Your task to perform on an android device: Add bose quietcomfort 35 to the cart on bestbuy Image 0: 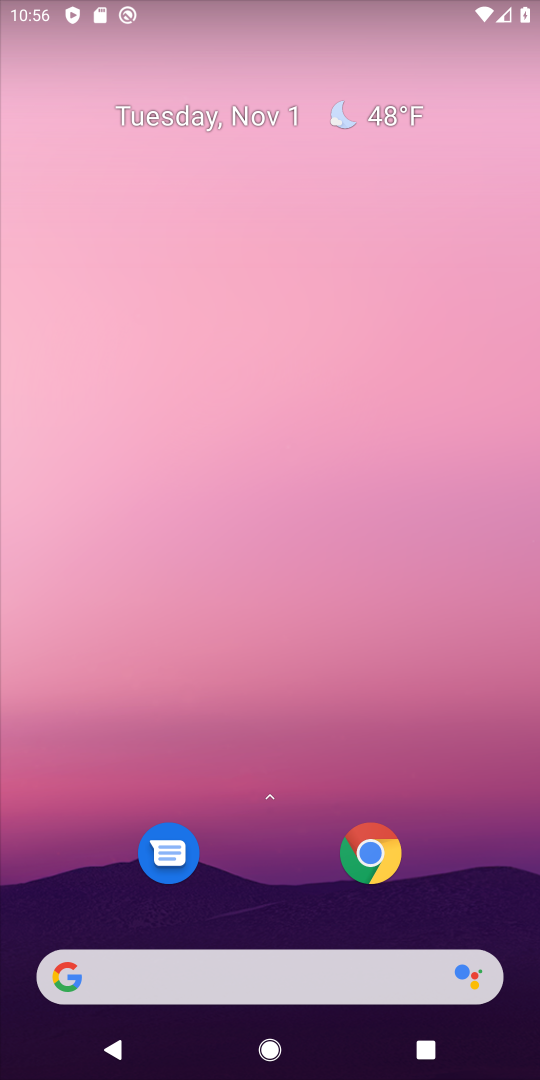
Step 0: drag from (339, 1027) to (292, 55)
Your task to perform on an android device: Add bose quietcomfort 35 to the cart on bestbuy Image 1: 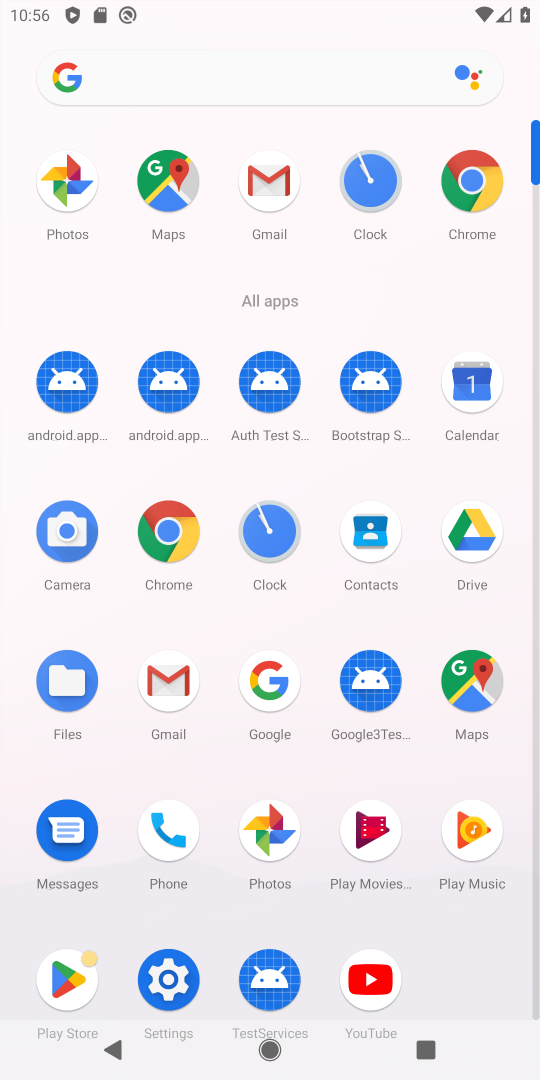
Step 1: click (174, 534)
Your task to perform on an android device: Add bose quietcomfort 35 to the cart on bestbuy Image 2: 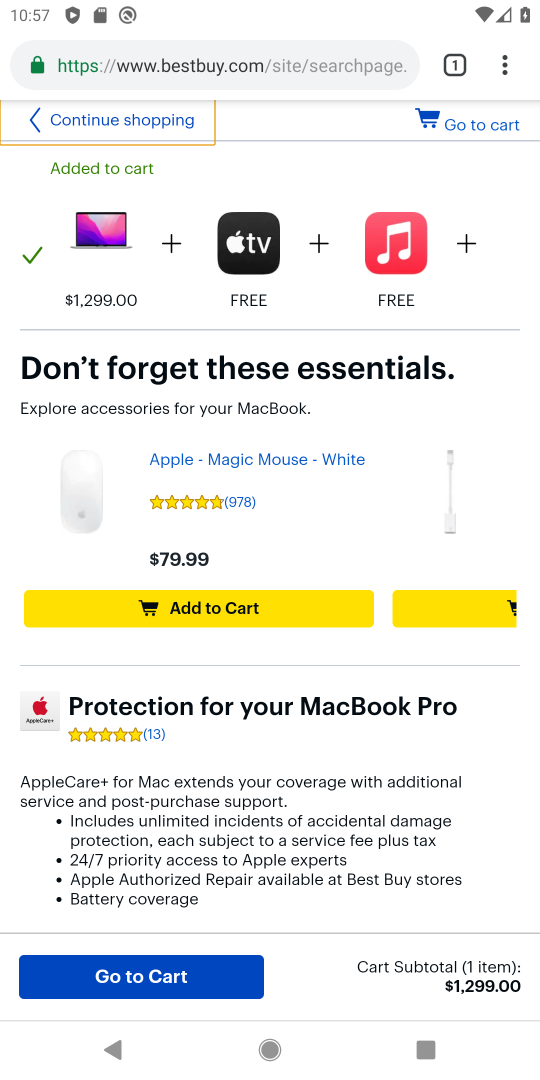
Step 2: click (208, 69)
Your task to perform on an android device: Add bose quietcomfort 35 to the cart on bestbuy Image 3: 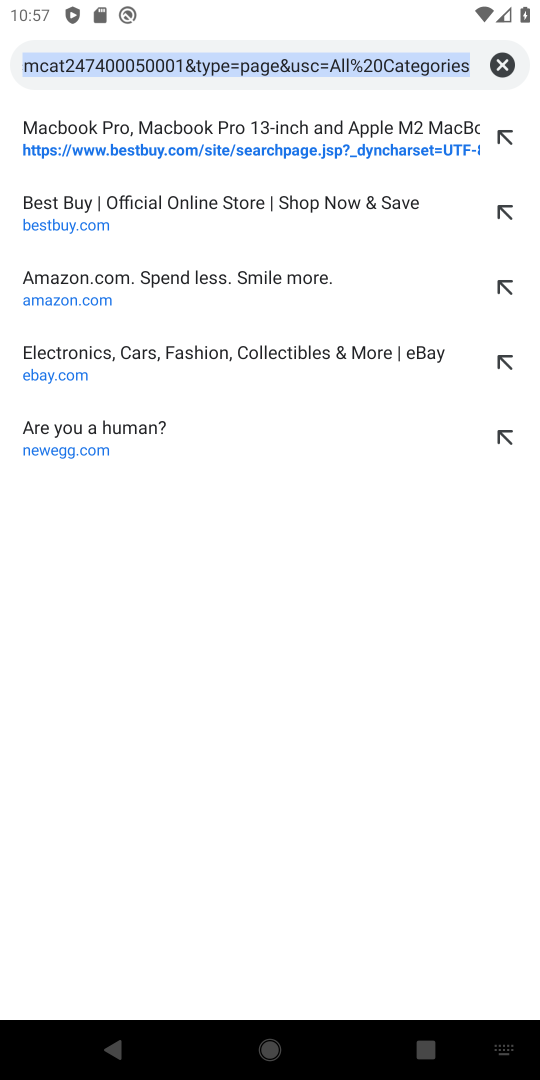
Step 3: click (501, 66)
Your task to perform on an android device: Add bose quietcomfort 35 to the cart on bestbuy Image 4: 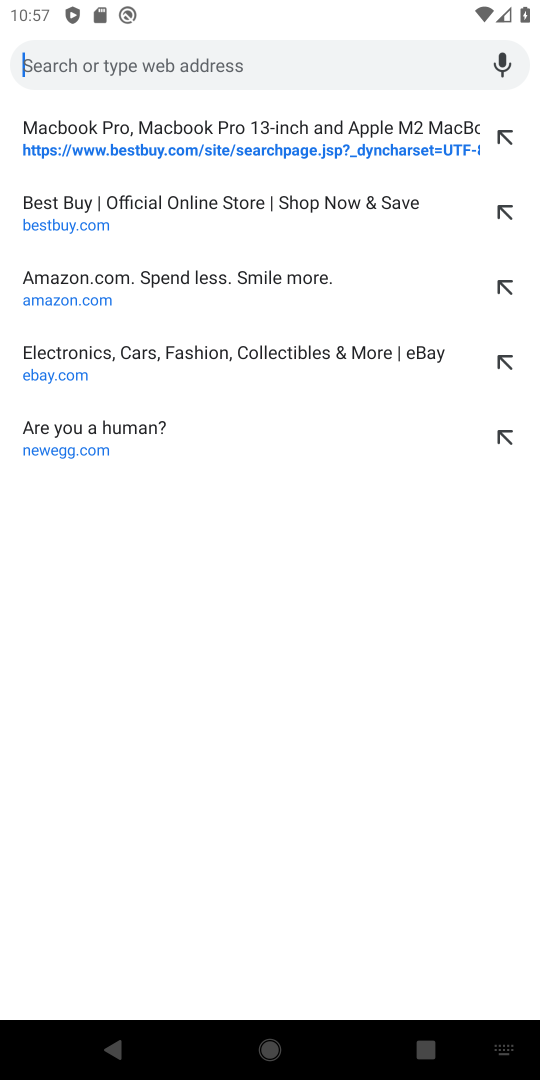
Step 4: type " bestbuy"
Your task to perform on an android device: Add bose quietcomfort 35 to the cart on bestbuy Image 5: 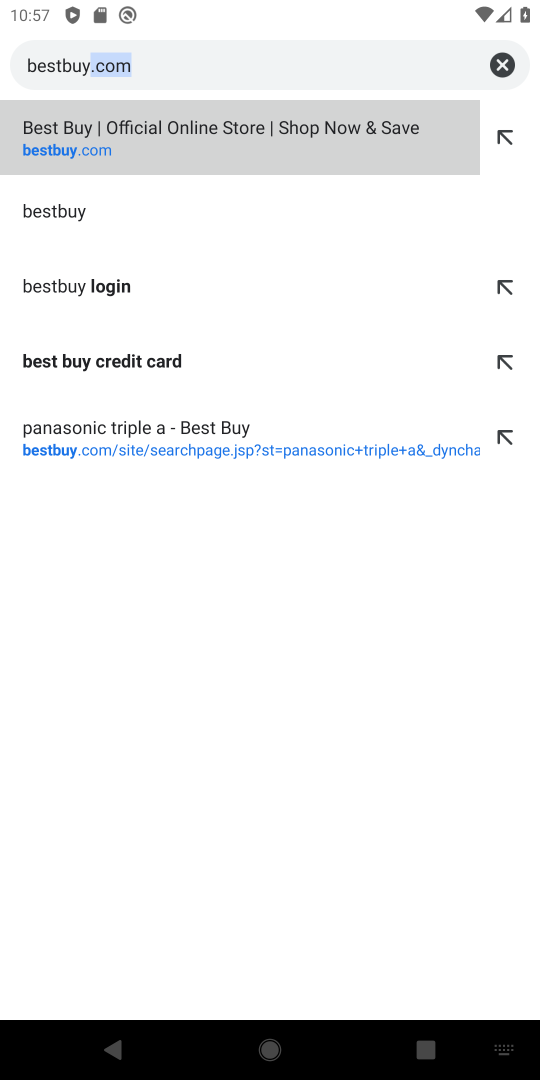
Step 5: click (44, 143)
Your task to perform on an android device: Add bose quietcomfort 35 to the cart on bestbuy Image 6: 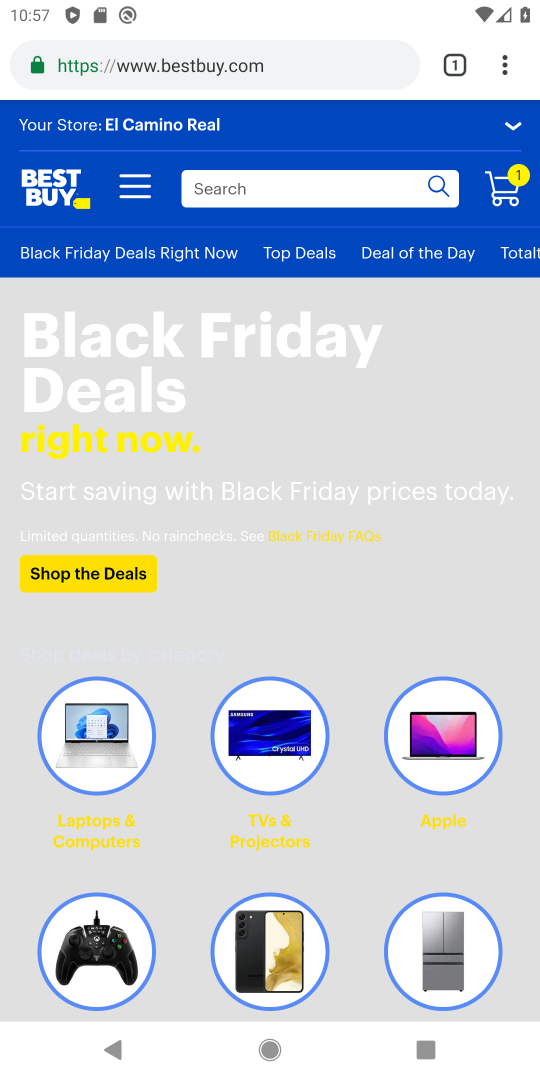
Step 6: click (231, 180)
Your task to perform on an android device: Add bose quietcomfort 35 to the cart on bestbuy Image 7: 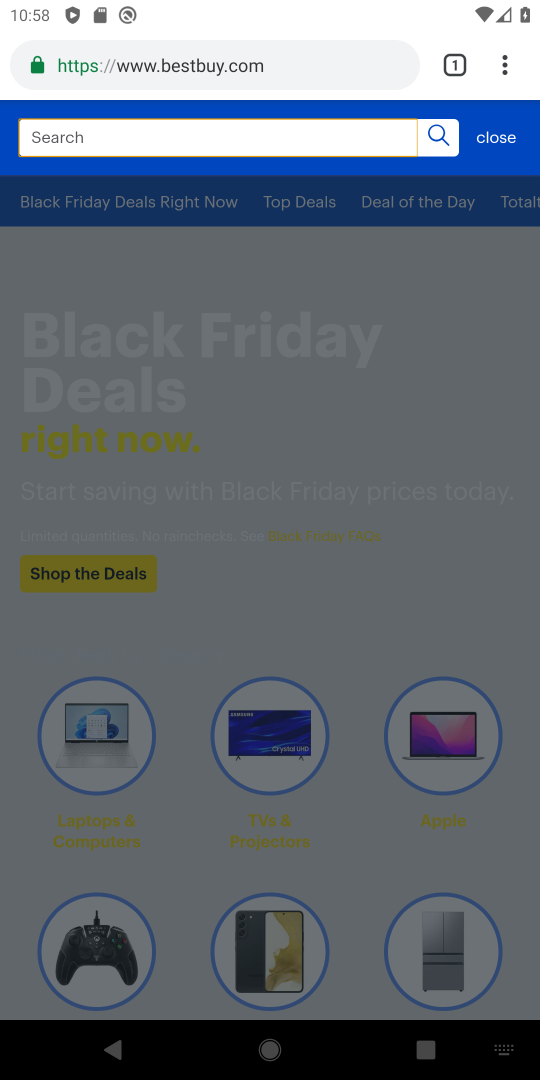
Step 7: type " bose quietcomfort 35"
Your task to perform on an android device: Add bose quietcomfort 35 to the cart on bestbuy Image 8: 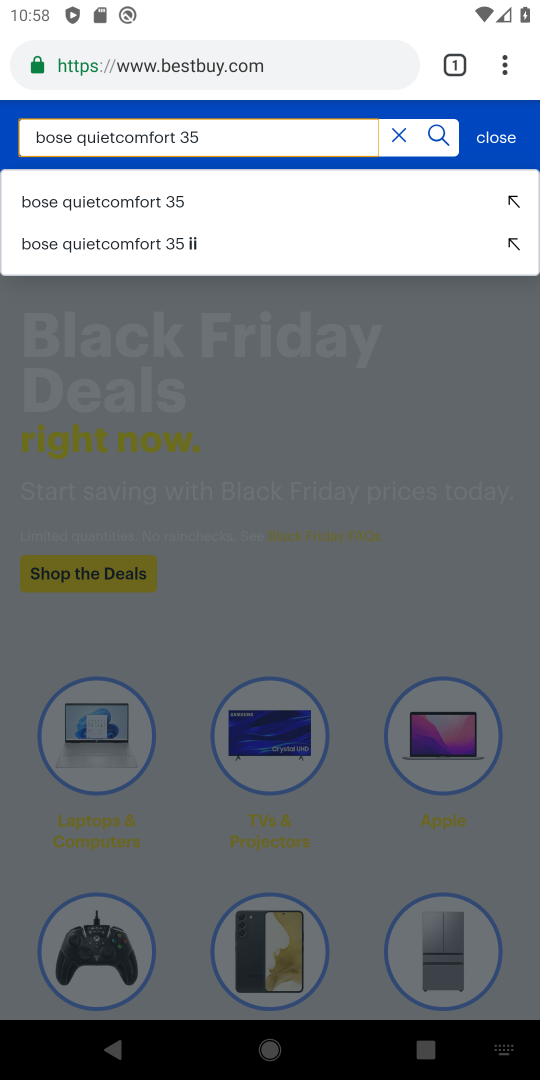
Step 8: click (100, 198)
Your task to perform on an android device: Add bose quietcomfort 35 to the cart on bestbuy Image 9: 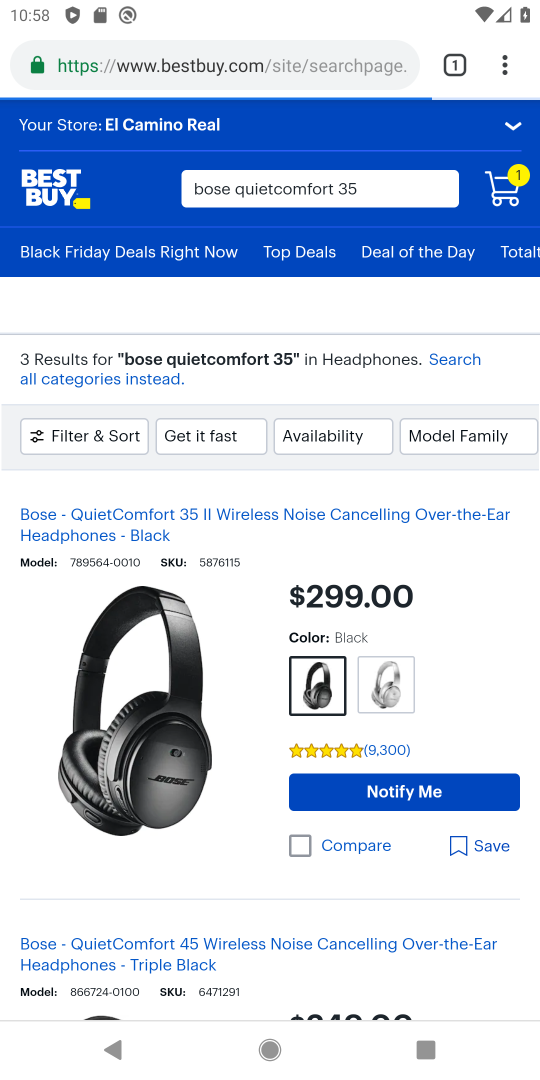
Step 9: click (255, 684)
Your task to perform on an android device: Add bose quietcomfort 35 to the cart on bestbuy Image 10: 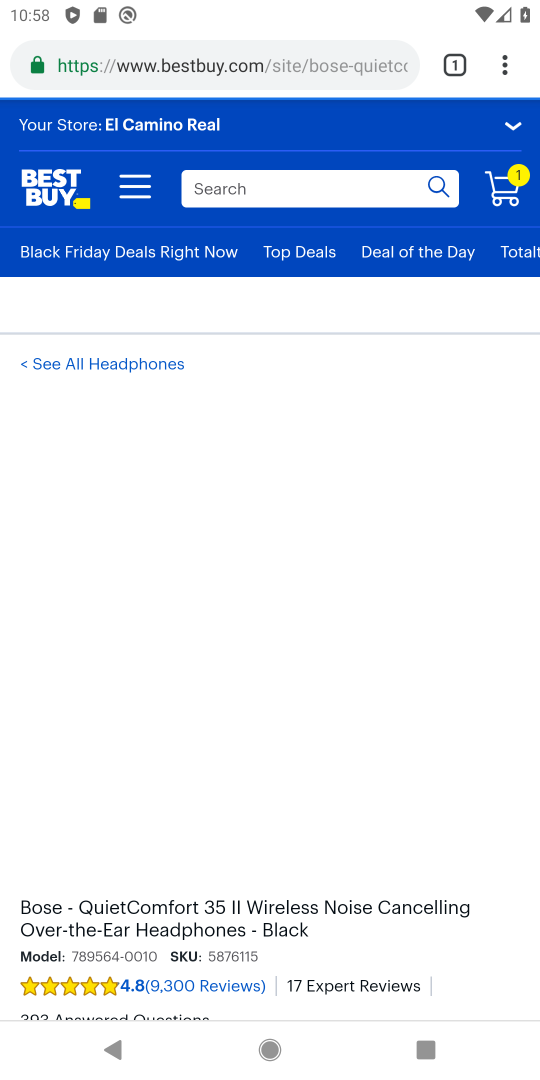
Step 10: drag from (316, 801) to (378, 310)
Your task to perform on an android device: Add bose quietcomfort 35 to the cart on bestbuy Image 11: 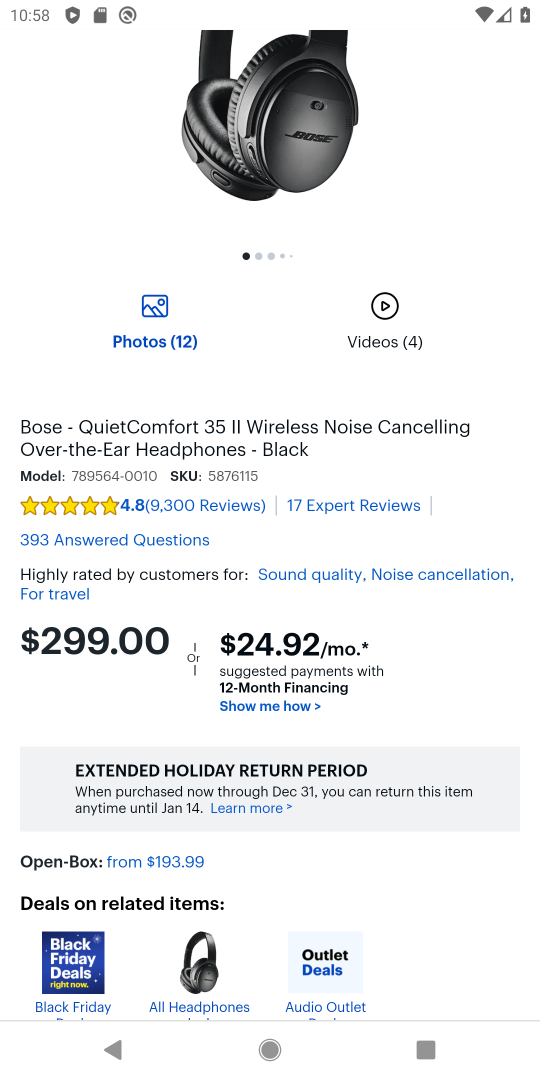
Step 11: drag from (357, 733) to (374, 256)
Your task to perform on an android device: Add bose quietcomfort 35 to the cart on bestbuy Image 12: 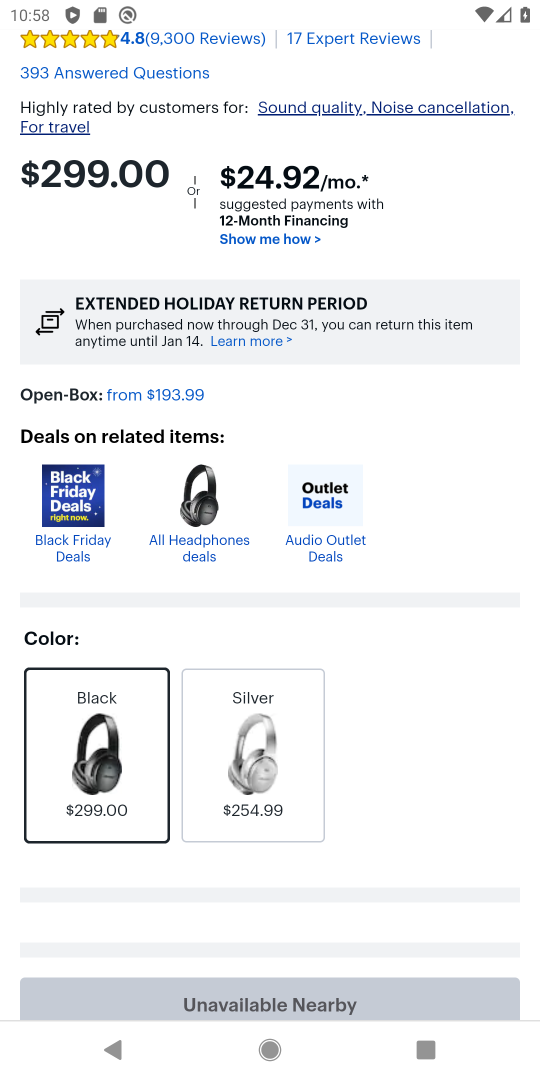
Step 12: drag from (352, 659) to (283, 1053)
Your task to perform on an android device: Add bose quietcomfort 35 to the cart on bestbuy Image 13: 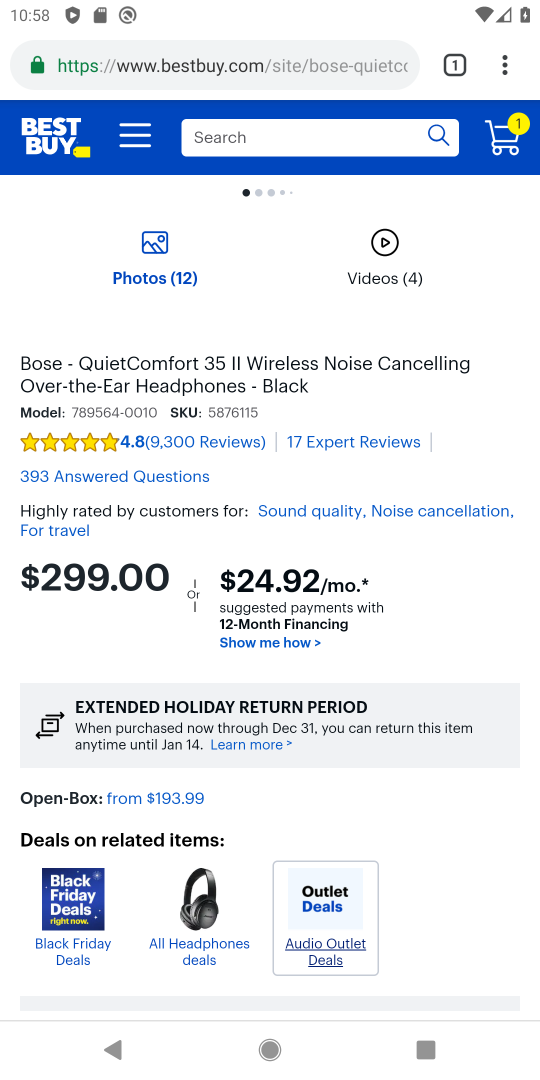
Step 13: drag from (410, 390) to (321, 924)
Your task to perform on an android device: Add bose quietcomfort 35 to the cart on bestbuy Image 14: 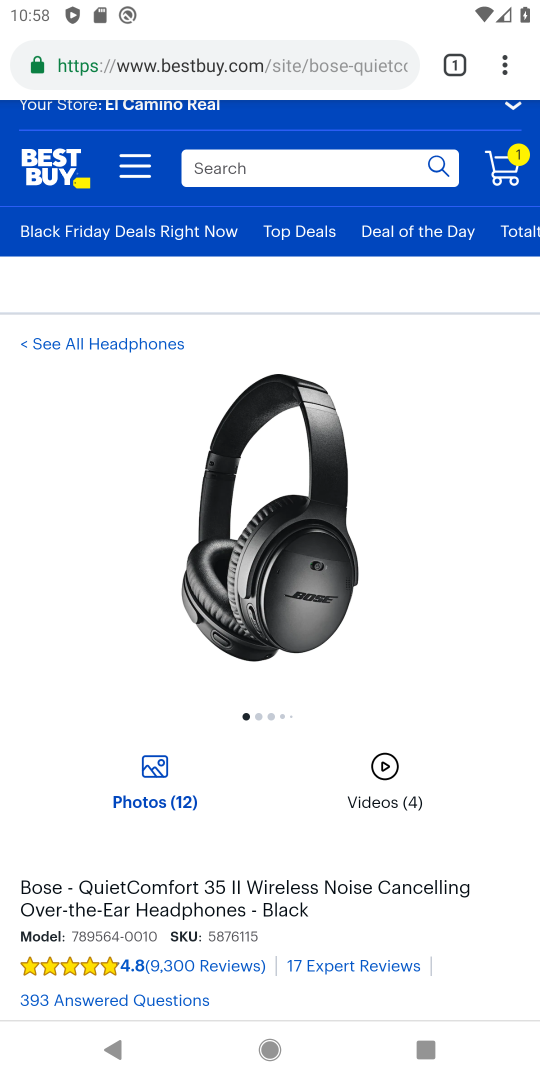
Step 14: press back button
Your task to perform on an android device: Add bose quietcomfort 35 to the cart on bestbuy Image 15: 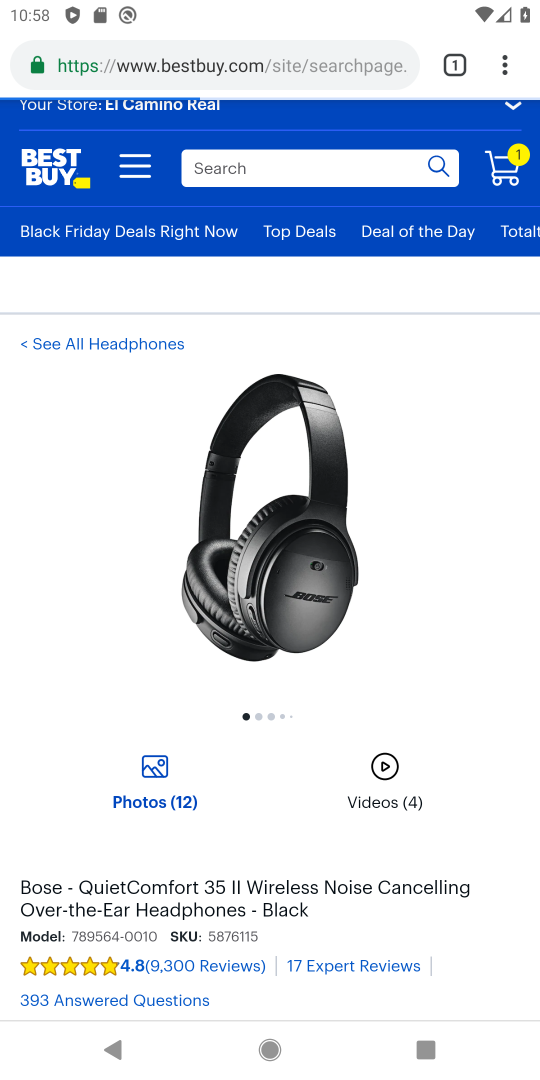
Step 15: press back button
Your task to perform on an android device: Add bose quietcomfort 35 to the cart on bestbuy Image 16: 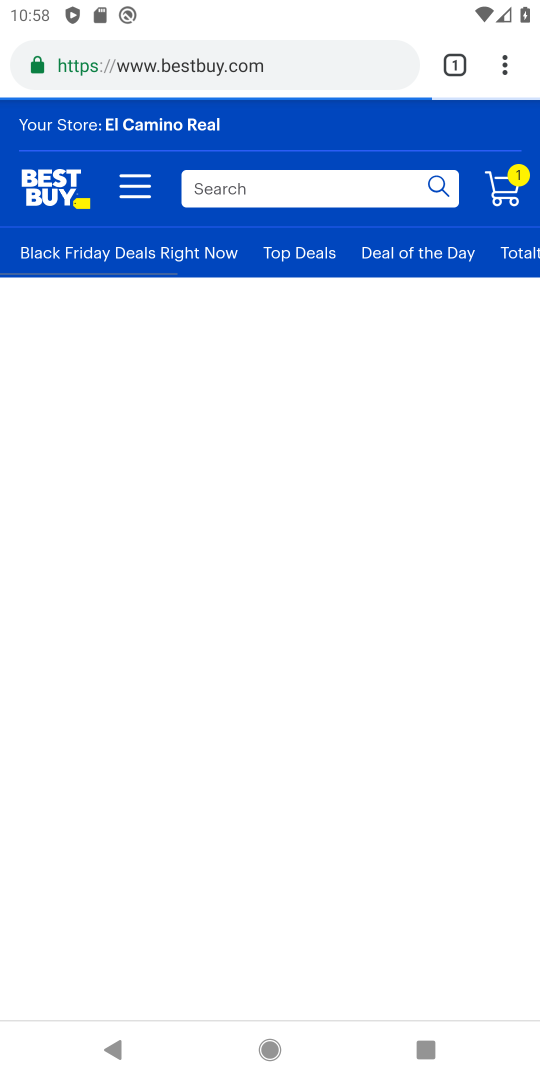
Step 16: press back button
Your task to perform on an android device: Add bose quietcomfort 35 to the cart on bestbuy Image 17: 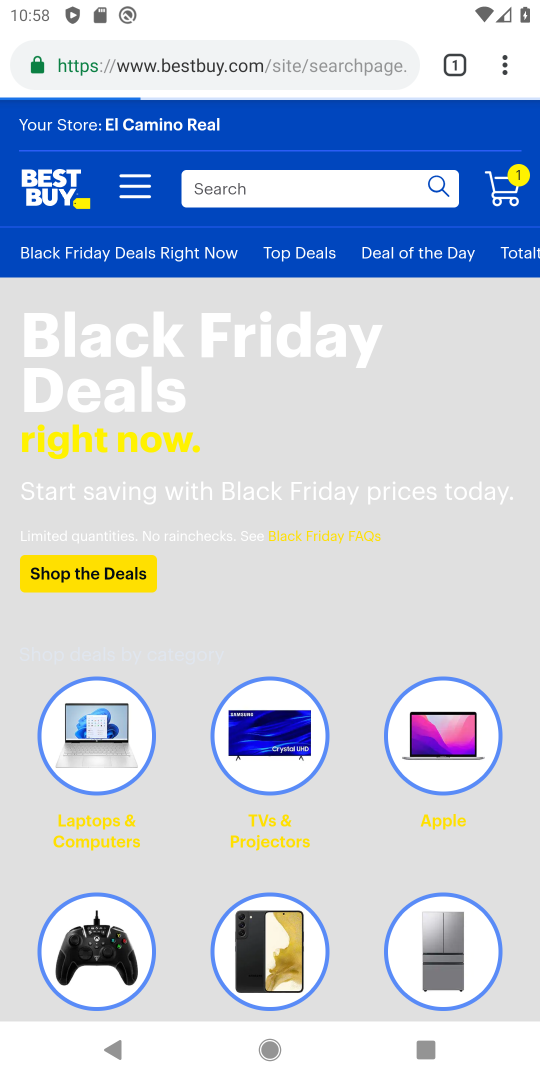
Step 17: click (366, 179)
Your task to perform on an android device: Add bose quietcomfort 35 to the cart on bestbuy Image 18: 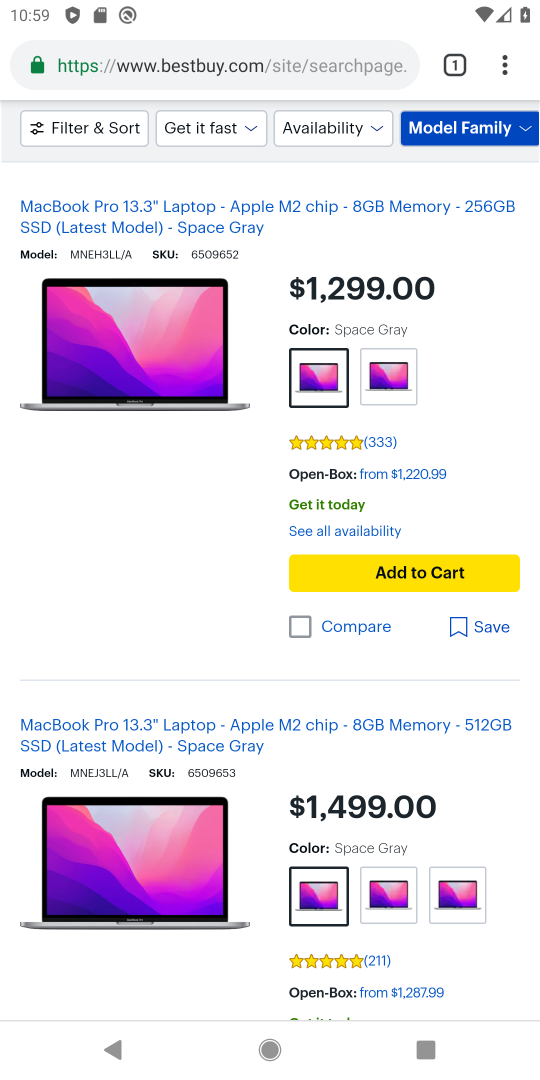
Step 18: drag from (444, 213) to (432, 681)
Your task to perform on an android device: Add bose quietcomfort 35 to the cart on bestbuy Image 19: 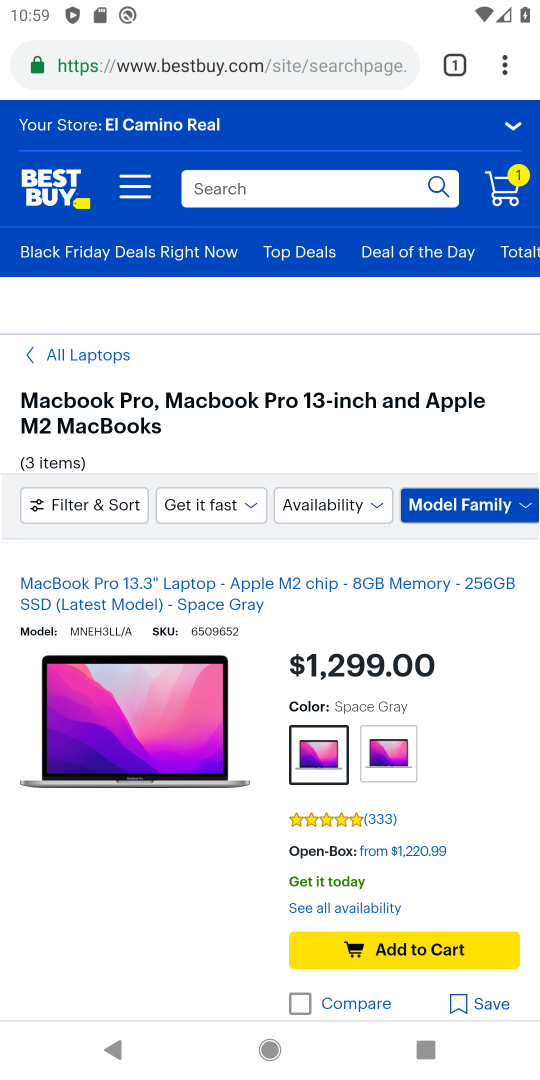
Step 19: click (265, 181)
Your task to perform on an android device: Add bose quietcomfort 35 to the cart on bestbuy Image 20: 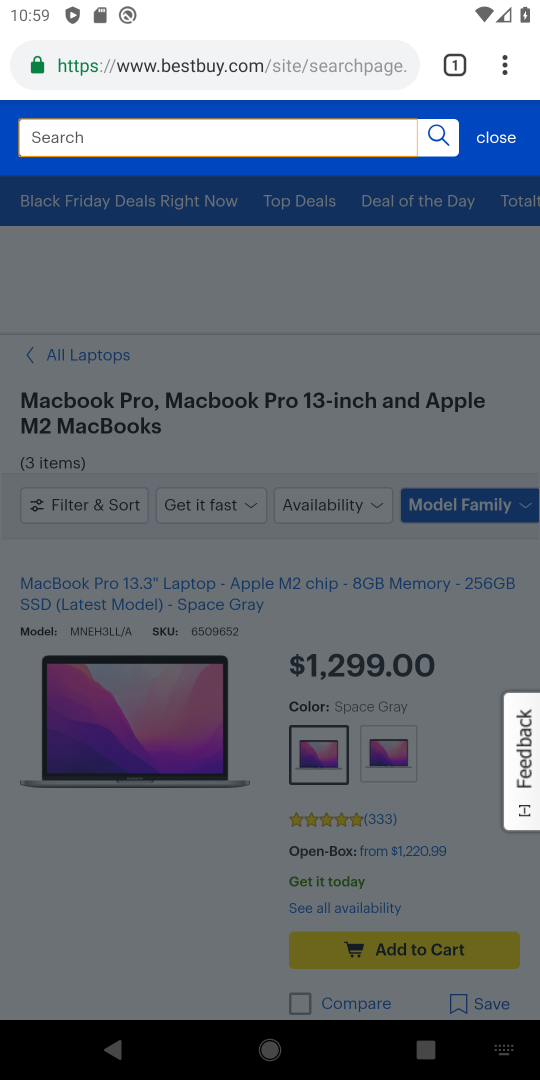
Step 20: type " bose quietcomfort 35"
Your task to perform on an android device: Add bose quietcomfort 35 to the cart on bestbuy Image 21: 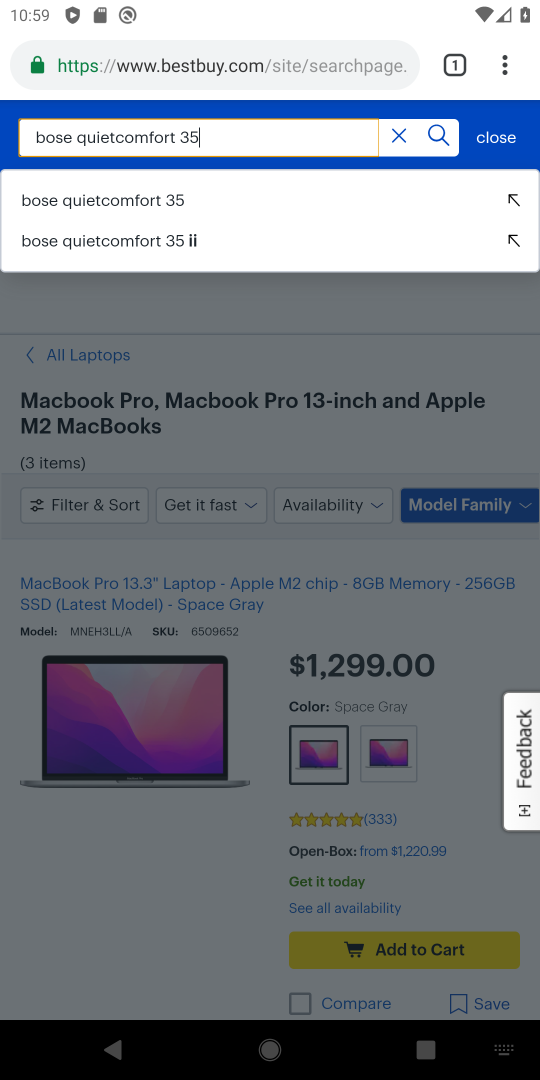
Step 21: click (78, 200)
Your task to perform on an android device: Add bose quietcomfort 35 to the cart on bestbuy Image 22: 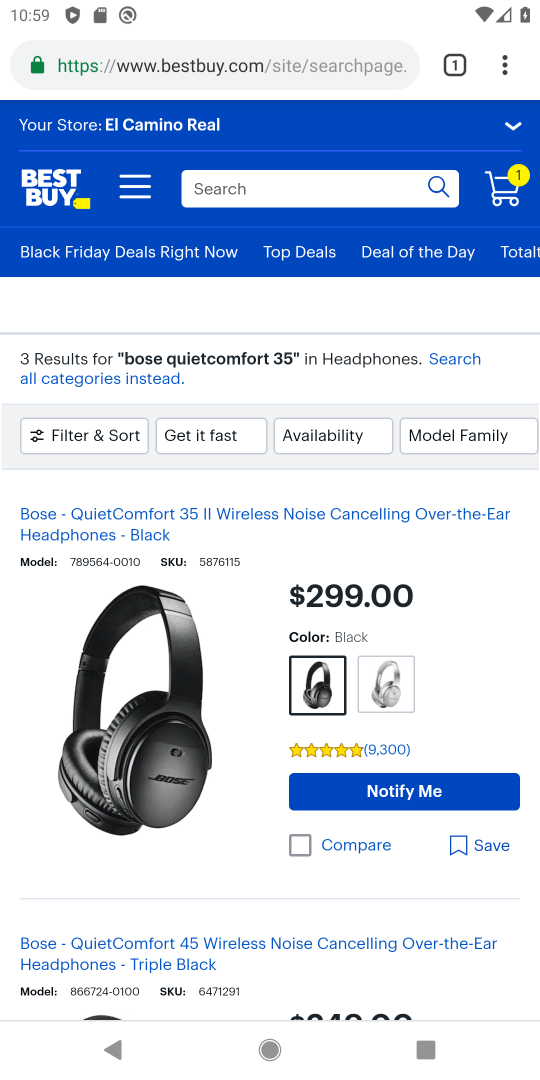
Step 22: click (230, 704)
Your task to perform on an android device: Add bose quietcomfort 35 to the cart on bestbuy Image 23: 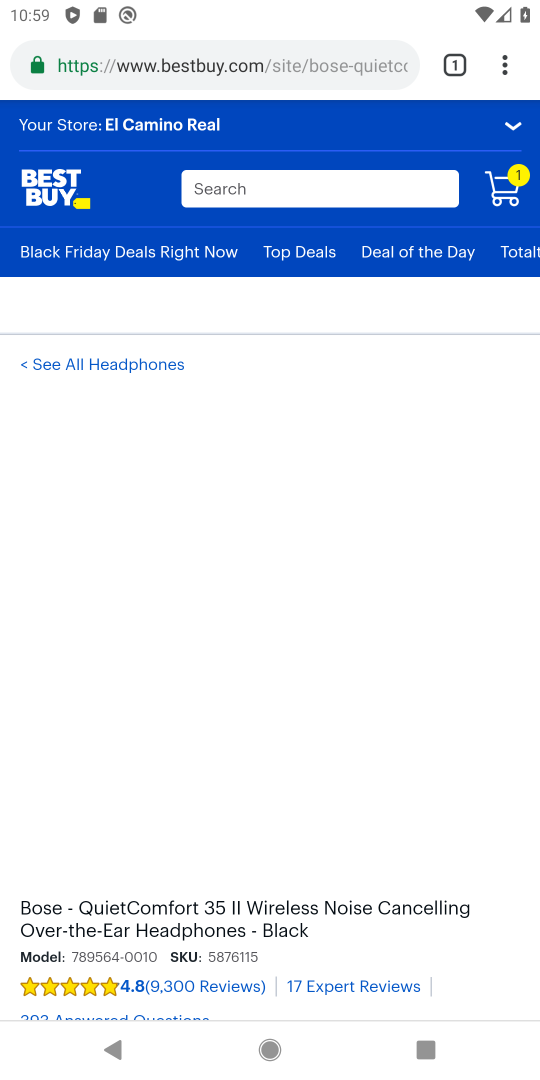
Step 23: task complete